Your task to perform on an android device: Open Google Chrome and open the bookmarks view Image 0: 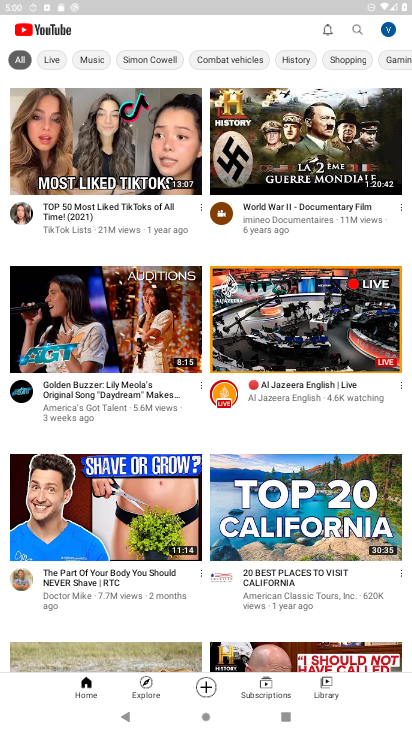
Step 0: press home button
Your task to perform on an android device: Open Google Chrome and open the bookmarks view Image 1: 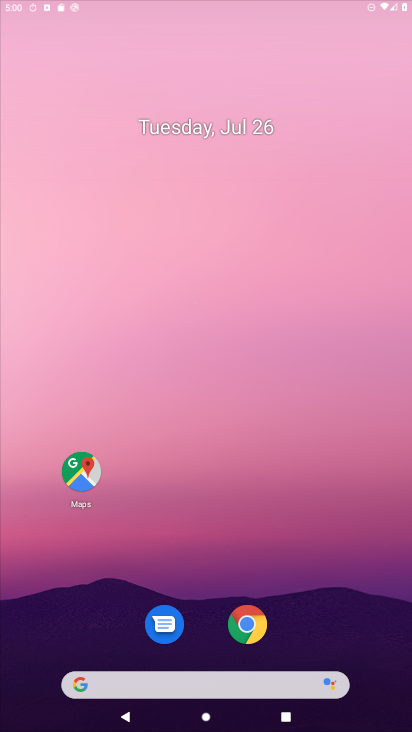
Step 1: drag from (195, 673) to (270, 17)
Your task to perform on an android device: Open Google Chrome and open the bookmarks view Image 2: 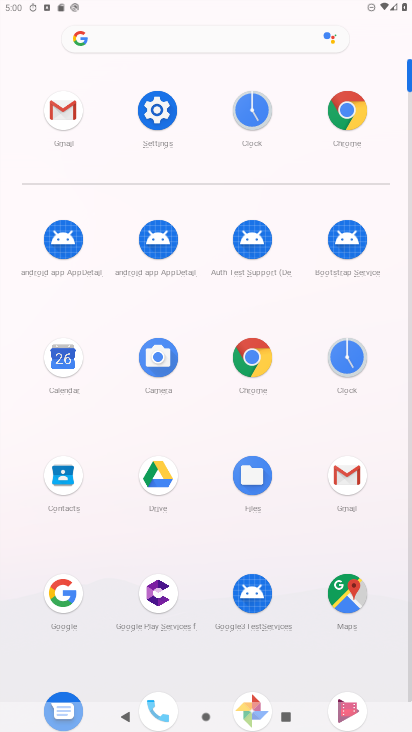
Step 2: click (252, 356)
Your task to perform on an android device: Open Google Chrome and open the bookmarks view Image 3: 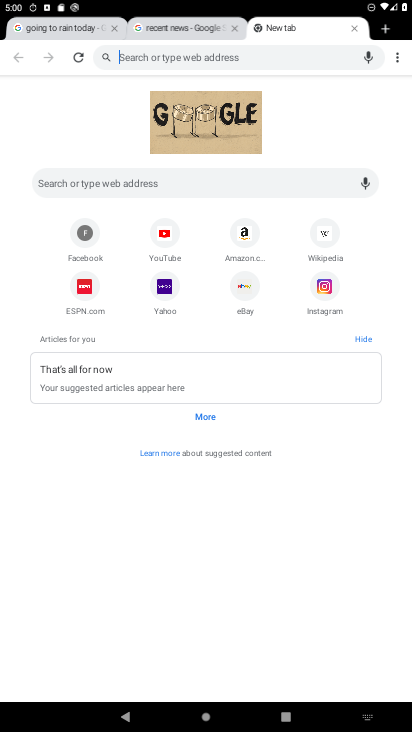
Step 3: click (394, 56)
Your task to perform on an android device: Open Google Chrome and open the bookmarks view Image 4: 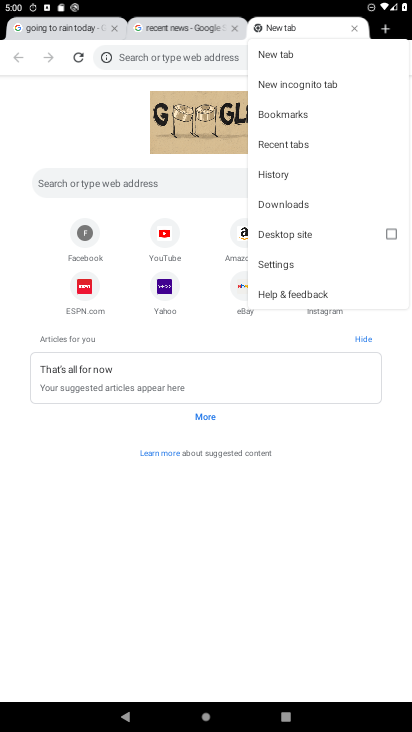
Step 4: click (286, 118)
Your task to perform on an android device: Open Google Chrome and open the bookmarks view Image 5: 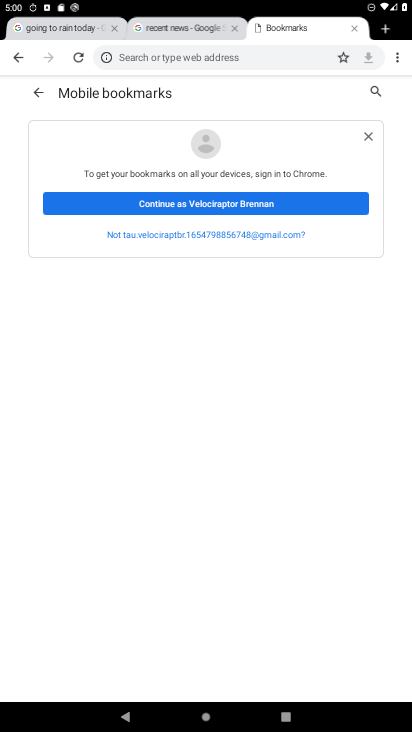
Step 5: task complete